Your task to perform on an android device: check android version Image 0: 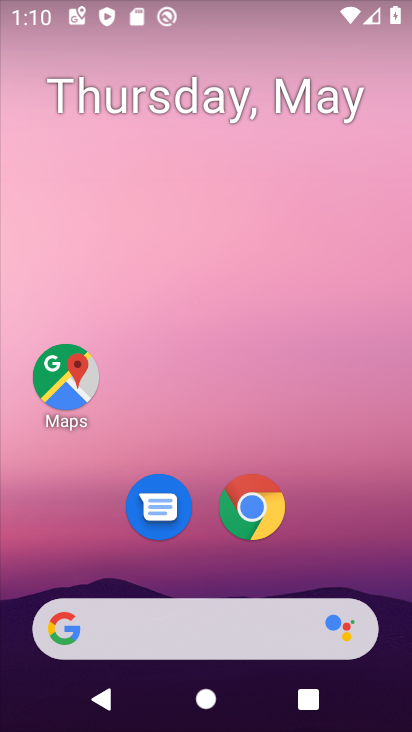
Step 0: drag from (247, 610) to (258, 8)
Your task to perform on an android device: check android version Image 1: 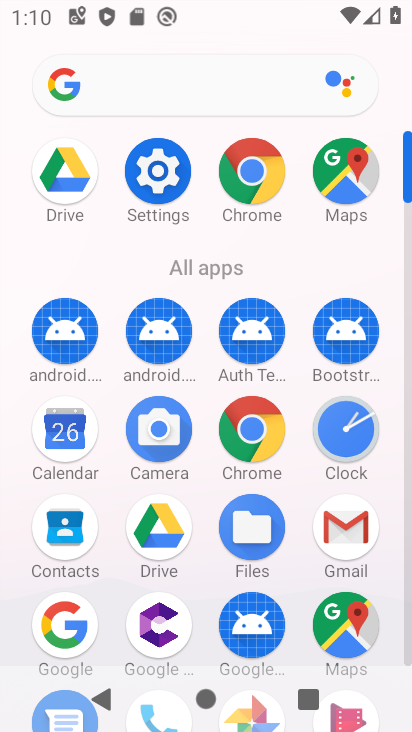
Step 1: click (172, 156)
Your task to perform on an android device: check android version Image 2: 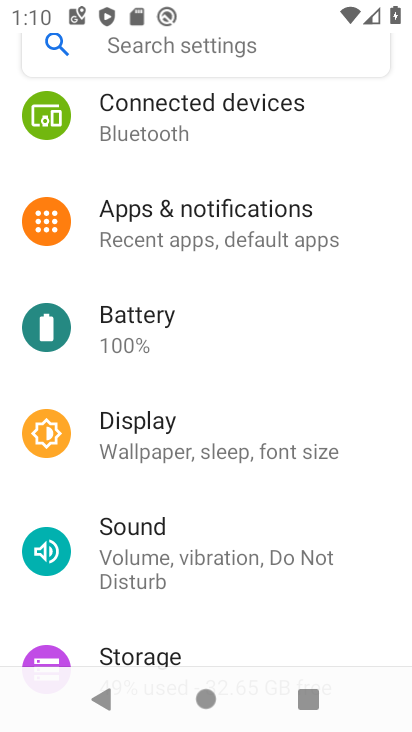
Step 2: drag from (296, 353) to (322, 704)
Your task to perform on an android device: check android version Image 3: 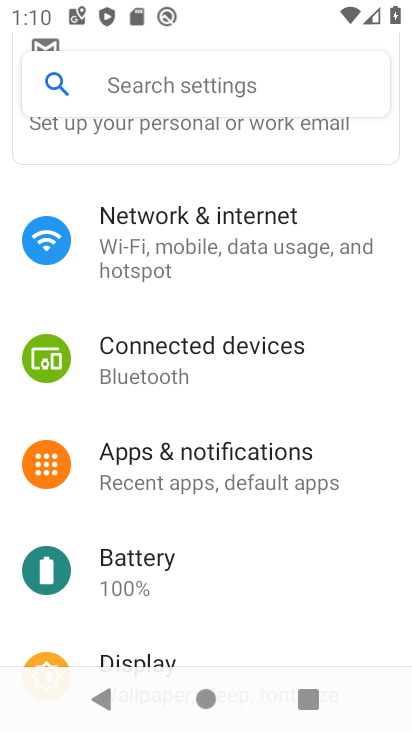
Step 3: drag from (334, 607) to (297, 101)
Your task to perform on an android device: check android version Image 4: 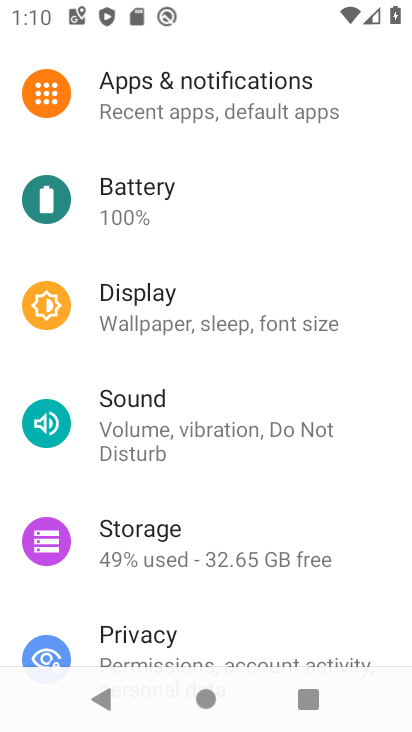
Step 4: drag from (337, 608) to (319, 181)
Your task to perform on an android device: check android version Image 5: 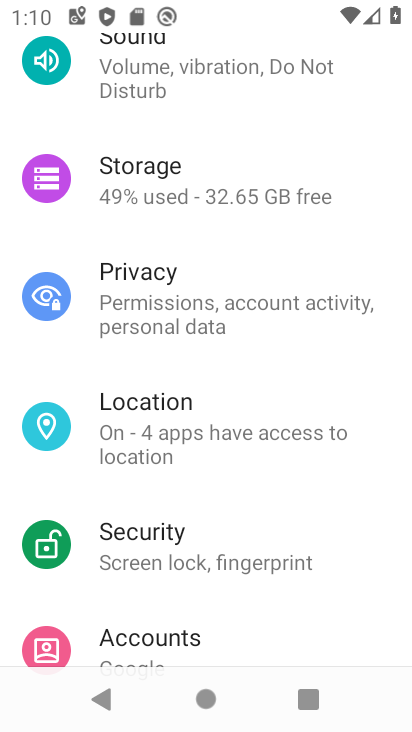
Step 5: drag from (295, 602) to (183, 114)
Your task to perform on an android device: check android version Image 6: 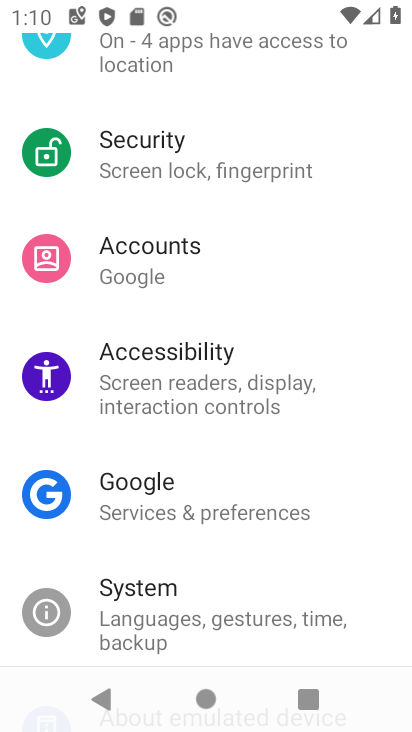
Step 6: drag from (208, 627) to (223, 461)
Your task to perform on an android device: check android version Image 7: 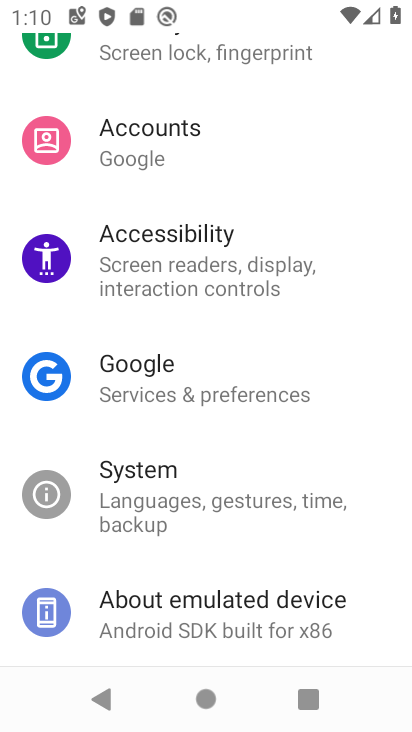
Step 7: click (255, 634)
Your task to perform on an android device: check android version Image 8: 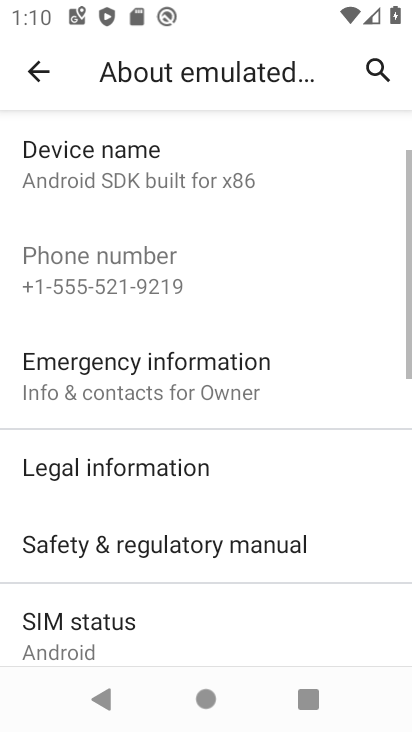
Step 8: drag from (201, 613) to (176, 264)
Your task to perform on an android device: check android version Image 9: 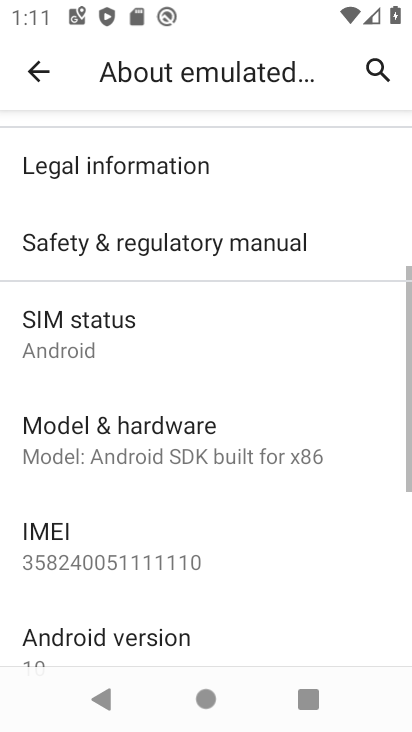
Step 9: drag from (160, 557) to (181, 114)
Your task to perform on an android device: check android version Image 10: 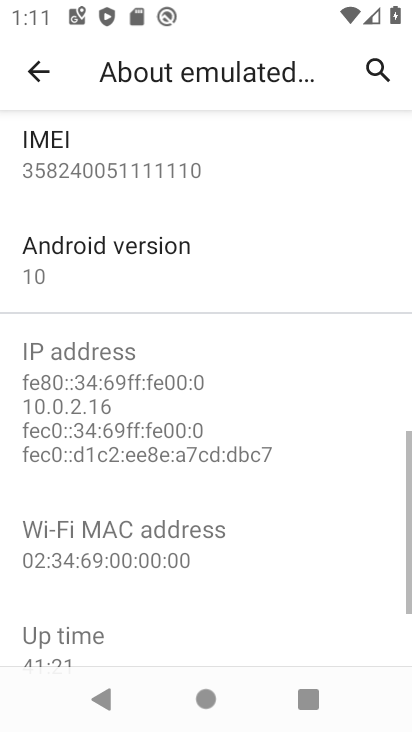
Step 10: drag from (254, 632) to (173, 226)
Your task to perform on an android device: check android version Image 11: 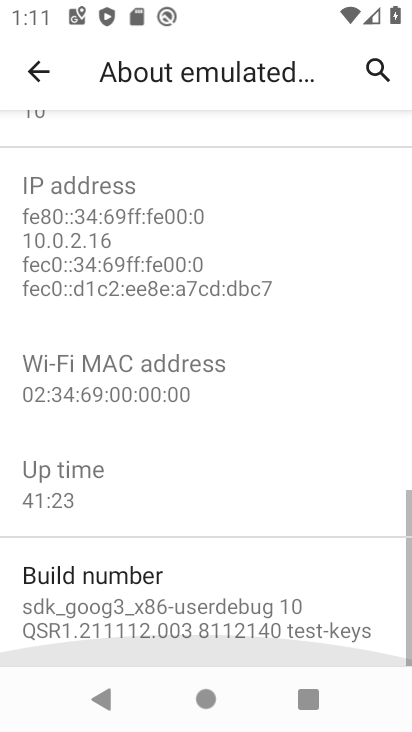
Step 11: click (149, 267)
Your task to perform on an android device: check android version Image 12: 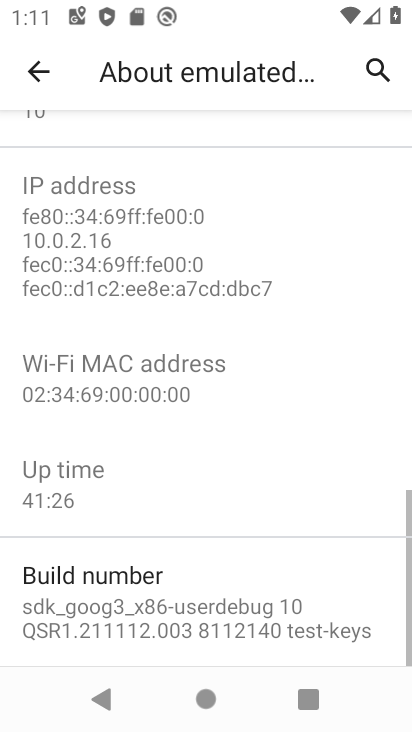
Step 12: drag from (192, 631) to (201, 355)
Your task to perform on an android device: check android version Image 13: 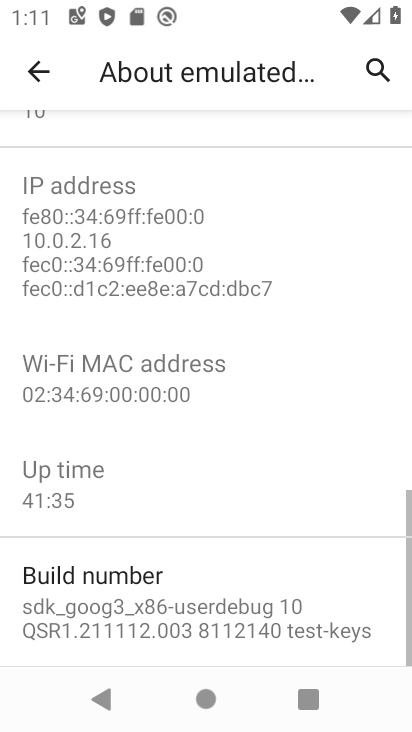
Step 13: drag from (199, 220) to (190, 648)
Your task to perform on an android device: check android version Image 14: 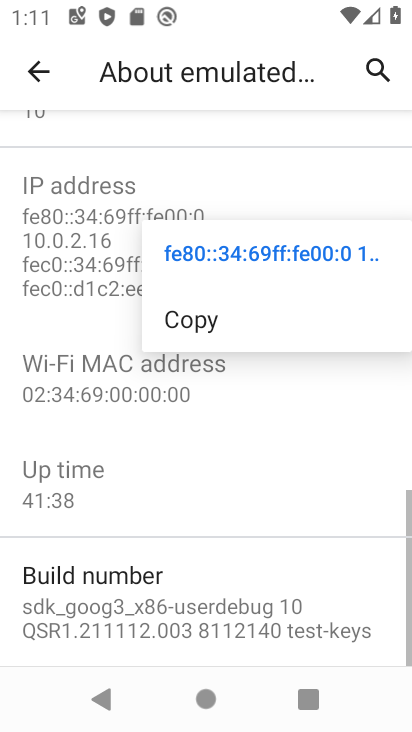
Step 14: click (358, 488)
Your task to perform on an android device: check android version Image 15: 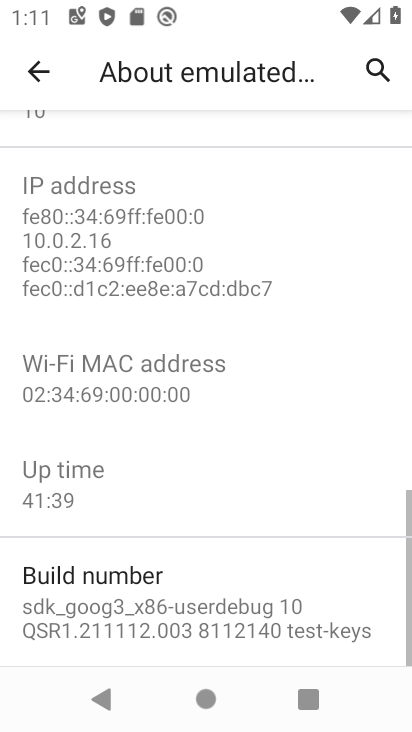
Step 15: task complete